Your task to perform on an android device: Open my contact list Image 0: 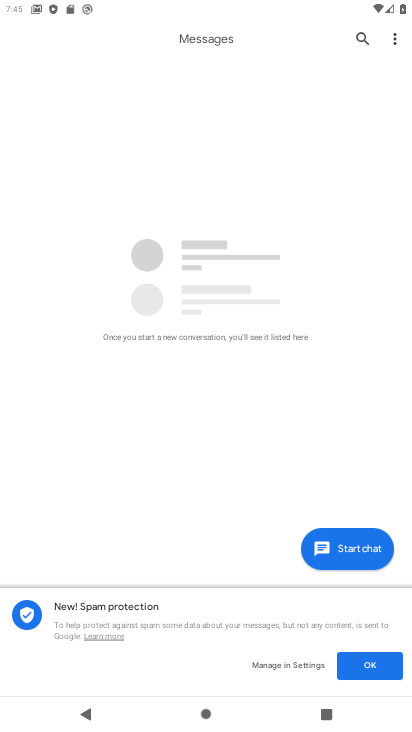
Step 0: press home button
Your task to perform on an android device: Open my contact list Image 1: 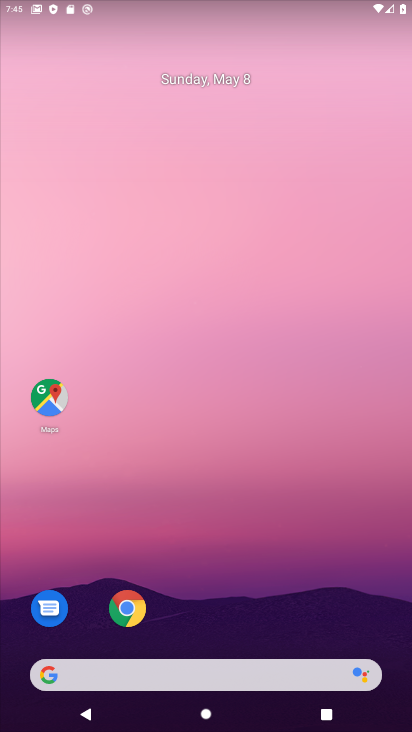
Step 1: drag from (231, 601) to (247, 258)
Your task to perform on an android device: Open my contact list Image 2: 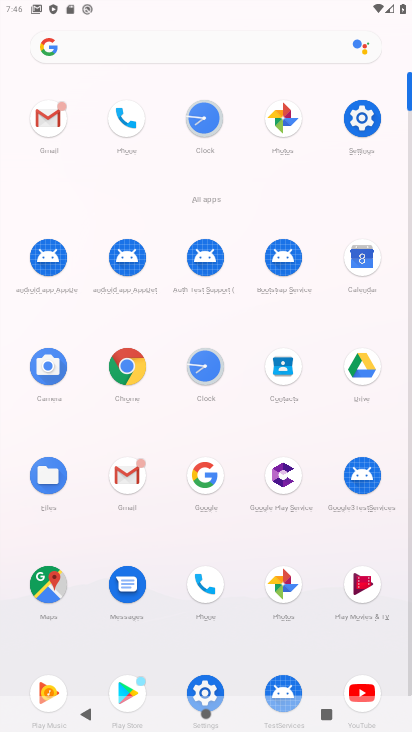
Step 2: click (198, 590)
Your task to perform on an android device: Open my contact list Image 3: 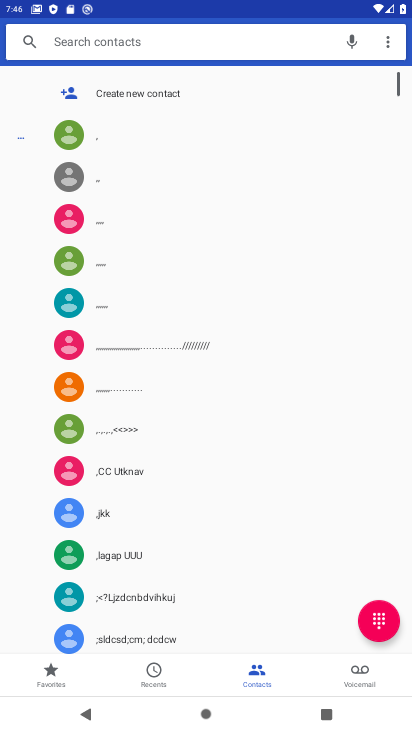
Step 3: task complete